Your task to perform on an android device: Go to ESPN.com Image 0: 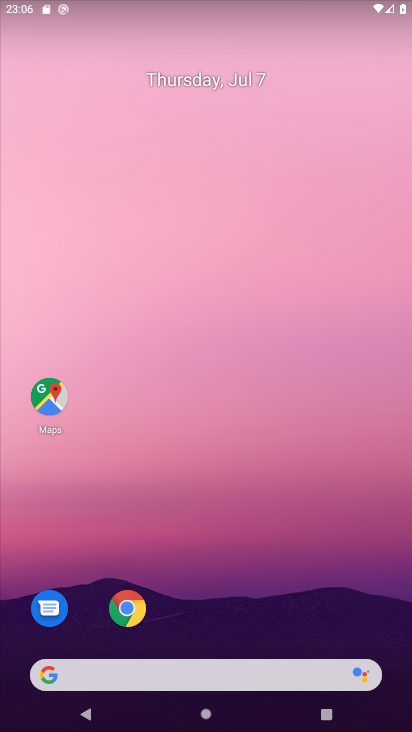
Step 0: drag from (226, 611) to (198, 306)
Your task to perform on an android device: Go to ESPN.com Image 1: 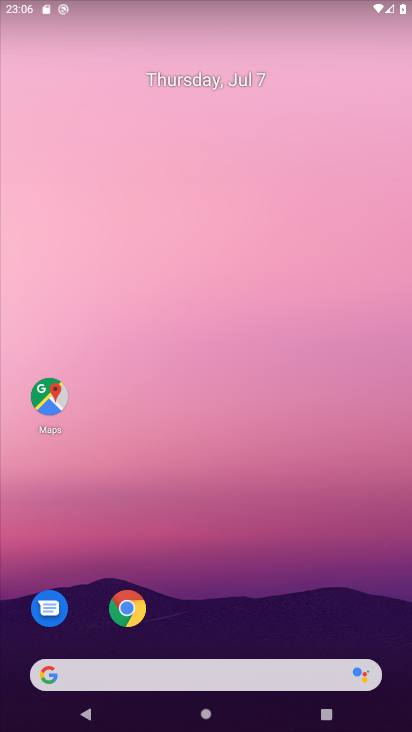
Step 1: click (130, 604)
Your task to perform on an android device: Go to ESPN.com Image 2: 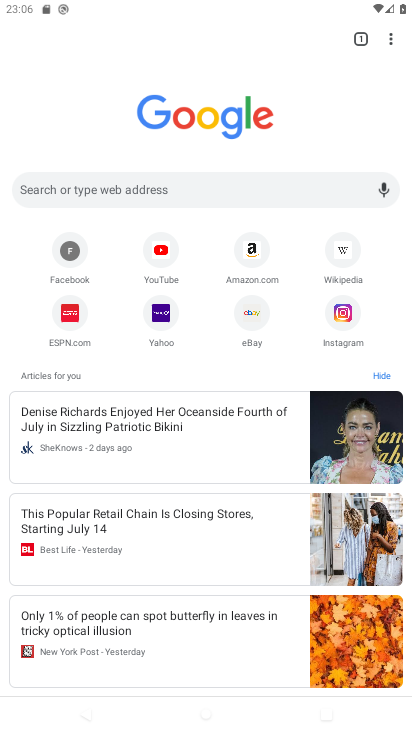
Step 2: click (65, 309)
Your task to perform on an android device: Go to ESPN.com Image 3: 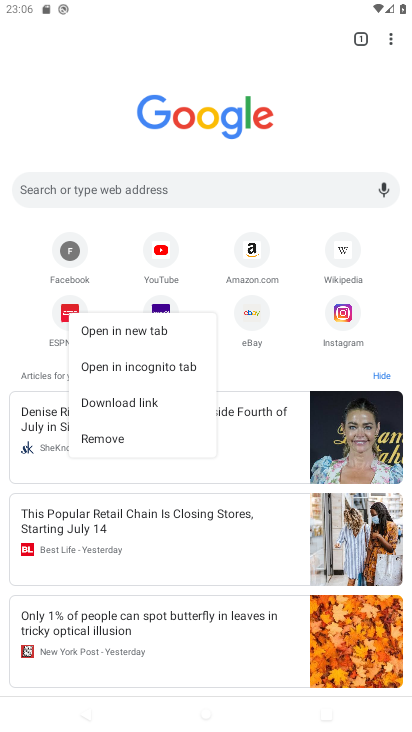
Step 3: click (77, 305)
Your task to perform on an android device: Go to ESPN.com Image 4: 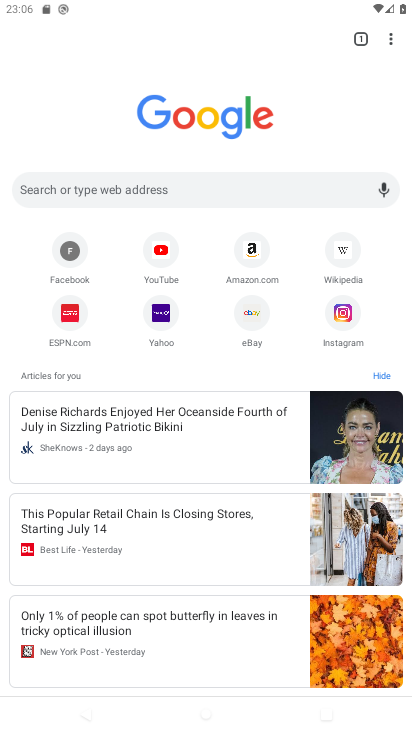
Step 4: click (69, 315)
Your task to perform on an android device: Go to ESPN.com Image 5: 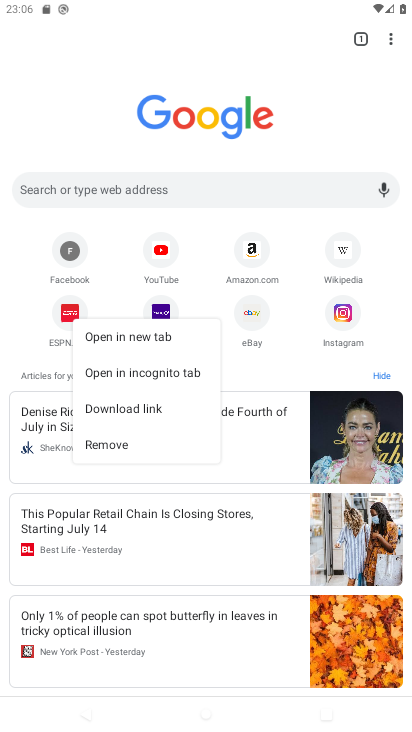
Step 5: click (73, 304)
Your task to perform on an android device: Go to ESPN.com Image 6: 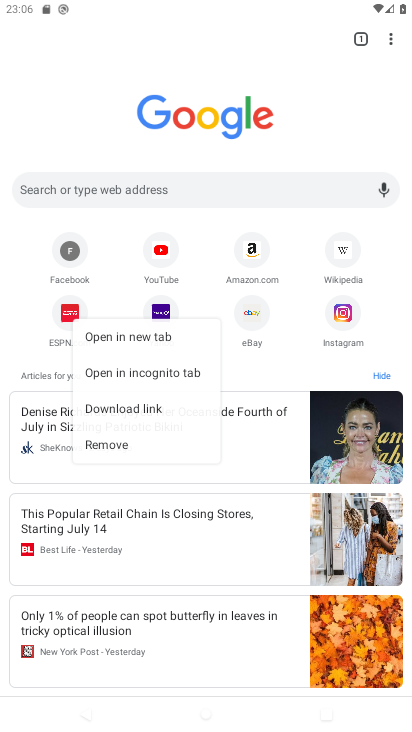
Step 6: drag from (73, 304) to (104, 334)
Your task to perform on an android device: Go to ESPN.com Image 7: 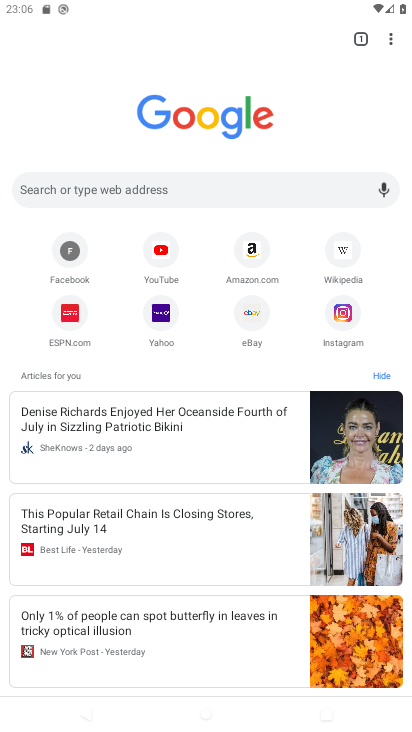
Step 7: click (60, 314)
Your task to perform on an android device: Go to ESPN.com Image 8: 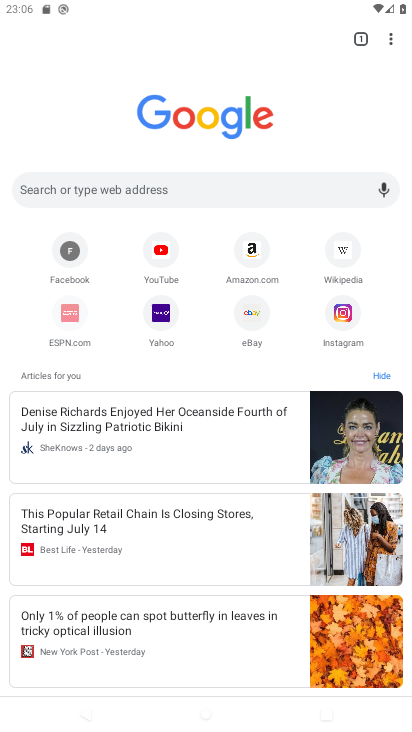
Step 8: click (74, 312)
Your task to perform on an android device: Go to ESPN.com Image 9: 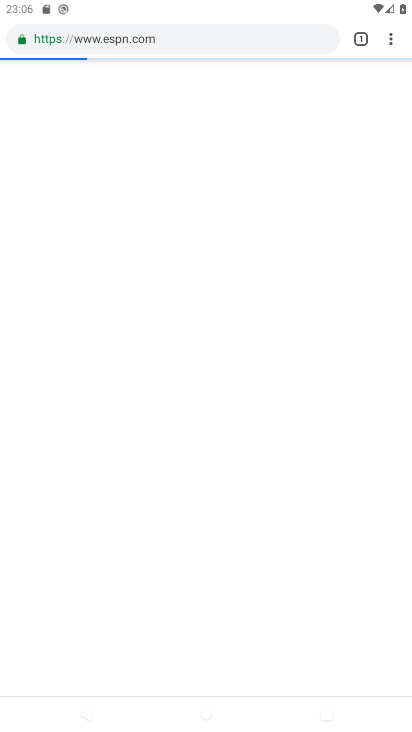
Step 9: click (73, 312)
Your task to perform on an android device: Go to ESPN.com Image 10: 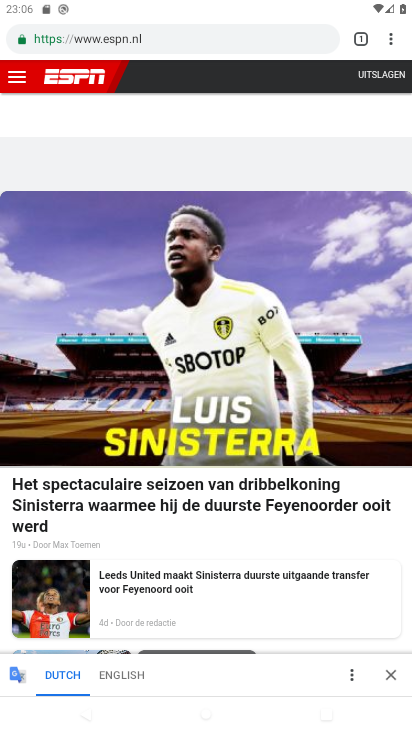
Step 10: task complete